Your task to perform on an android device: find snoozed emails in the gmail app Image 0: 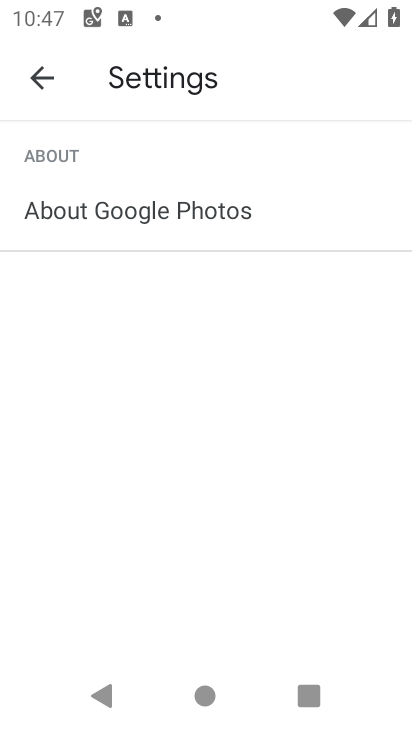
Step 0: press home button
Your task to perform on an android device: find snoozed emails in the gmail app Image 1: 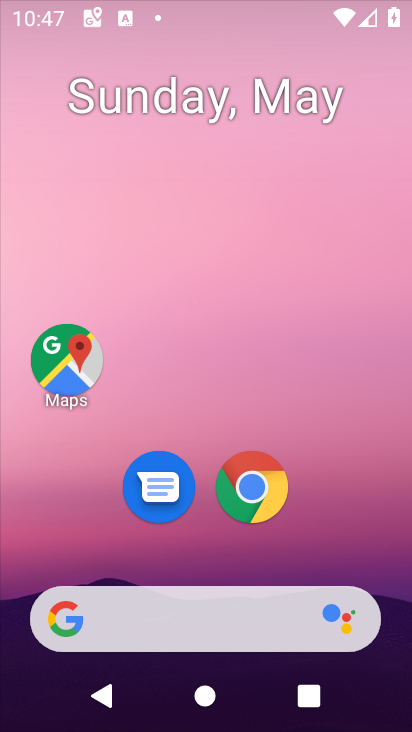
Step 1: drag from (226, 681) to (183, 28)
Your task to perform on an android device: find snoozed emails in the gmail app Image 2: 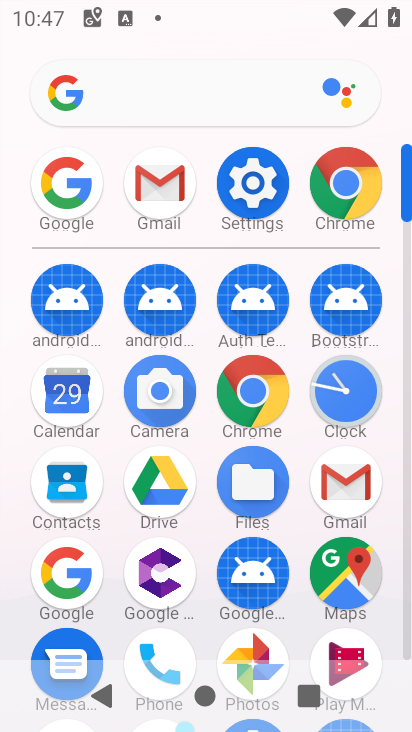
Step 2: click (357, 486)
Your task to perform on an android device: find snoozed emails in the gmail app Image 3: 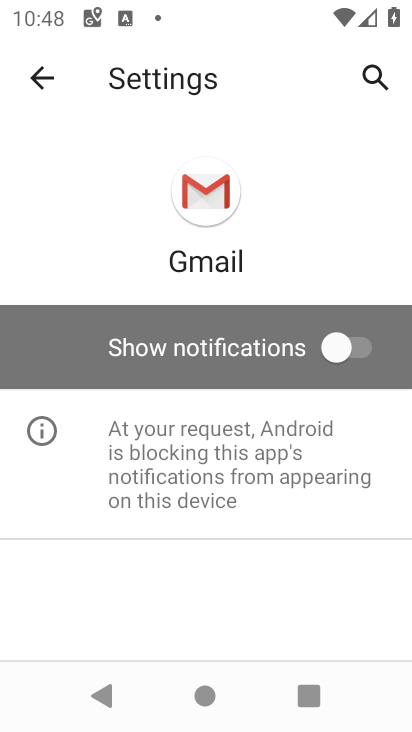
Step 3: click (40, 81)
Your task to perform on an android device: find snoozed emails in the gmail app Image 4: 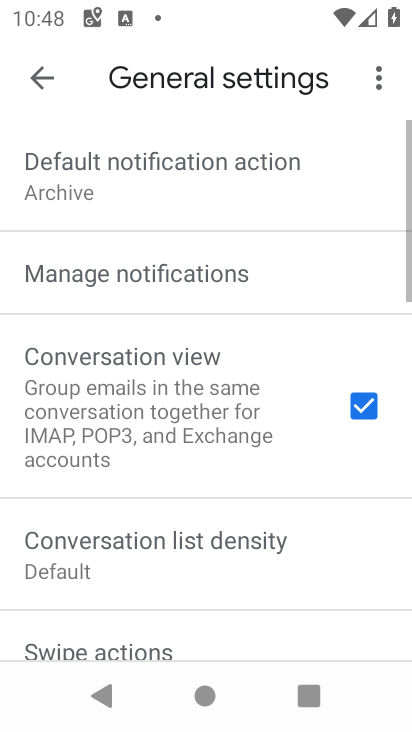
Step 4: click (43, 82)
Your task to perform on an android device: find snoozed emails in the gmail app Image 5: 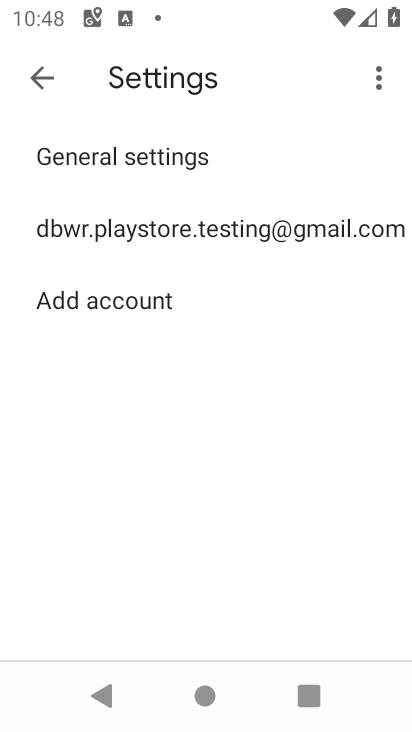
Step 5: click (43, 82)
Your task to perform on an android device: find snoozed emails in the gmail app Image 6: 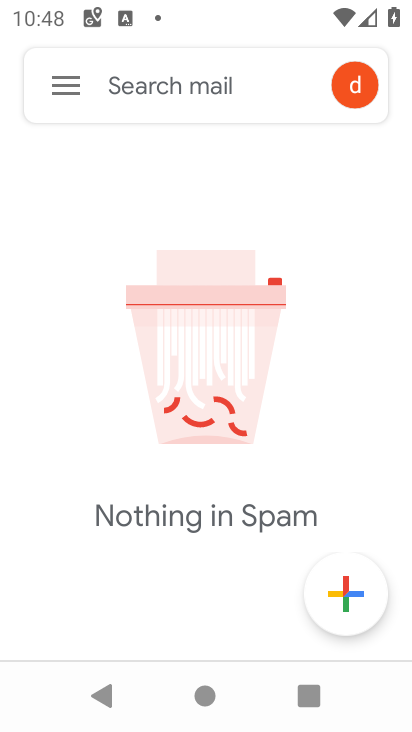
Step 6: click (43, 82)
Your task to perform on an android device: find snoozed emails in the gmail app Image 7: 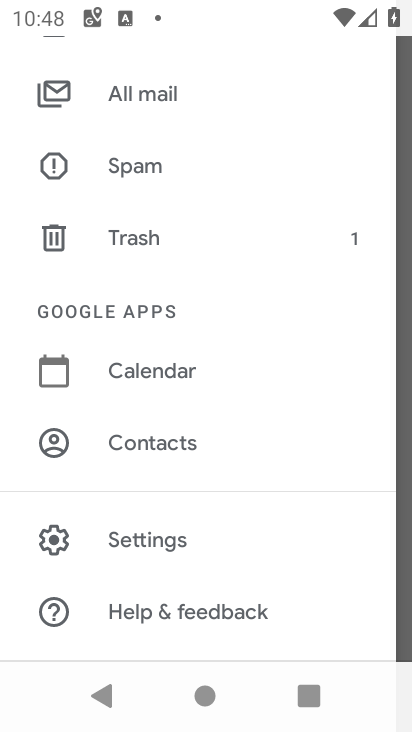
Step 7: drag from (137, 303) to (181, 682)
Your task to perform on an android device: find snoozed emails in the gmail app Image 8: 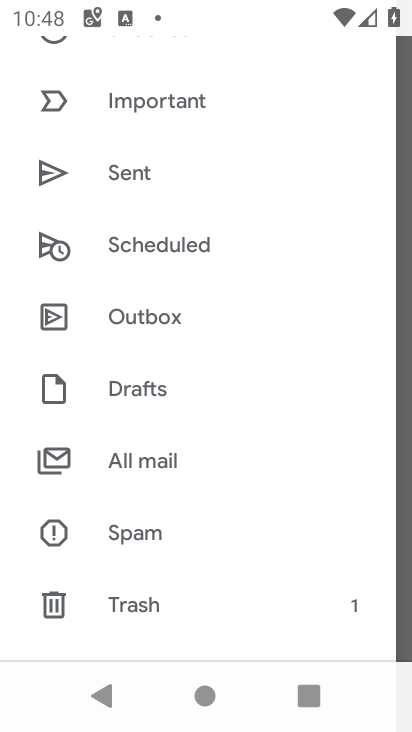
Step 8: drag from (201, 232) to (141, 648)
Your task to perform on an android device: find snoozed emails in the gmail app Image 9: 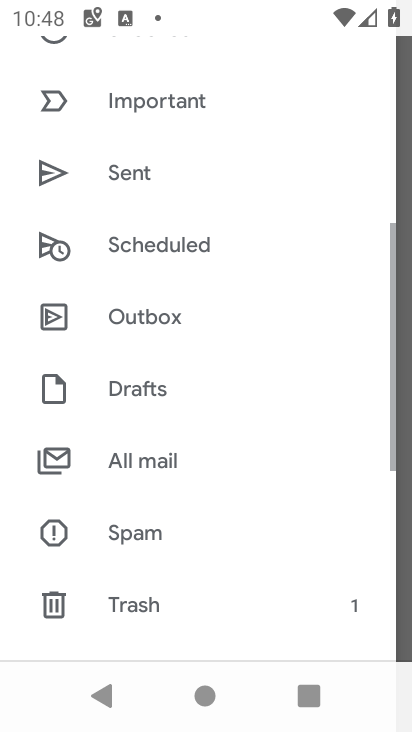
Step 9: drag from (142, 354) to (236, 724)
Your task to perform on an android device: find snoozed emails in the gmail app Image 10: 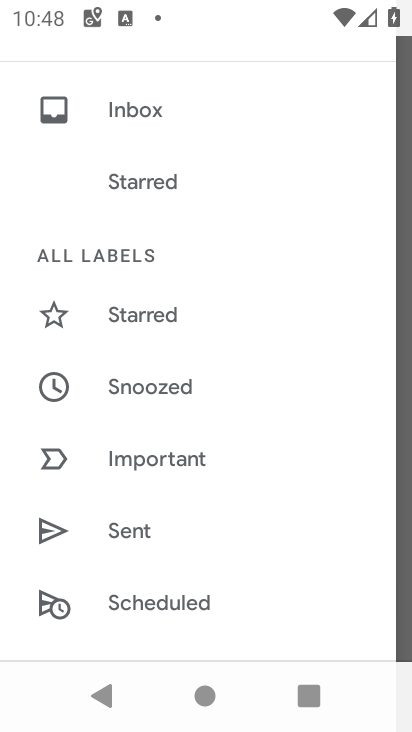
Step 10: click (140, 400)
Your task to perform on an android device: find snoozed emails in the gmail app Image 11: 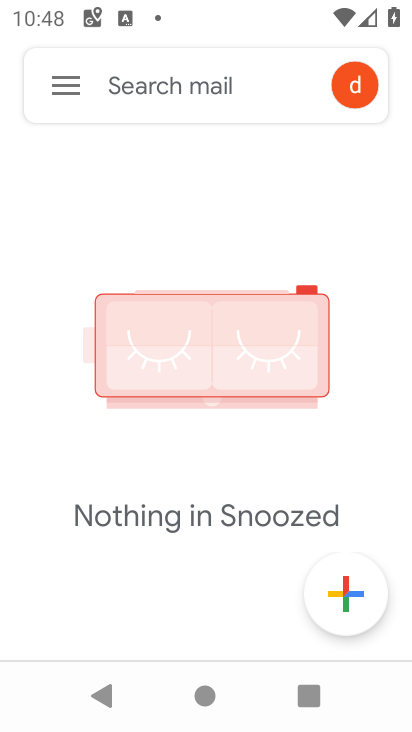
Step 11: task complete